Your task to perform on an android device: turn vacation reply on in the gmail app Image 0: 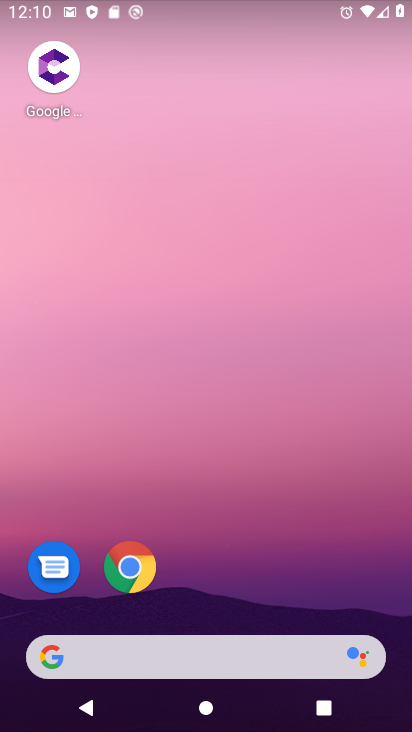
Step 0: drag from (222, 641) to (228, 243)
Your task to perform on an android device: turn vacation reply on in the gmail app Image 1: 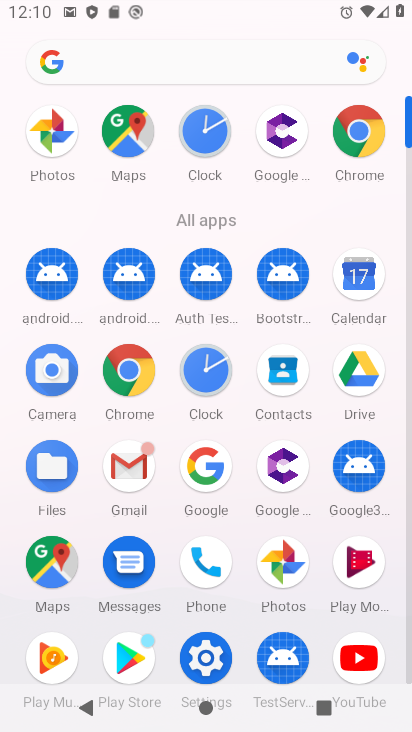
Step 1: click (147, 456)
Your task to perform on an android device: turn vacation reply on in the gmail app Image 2: 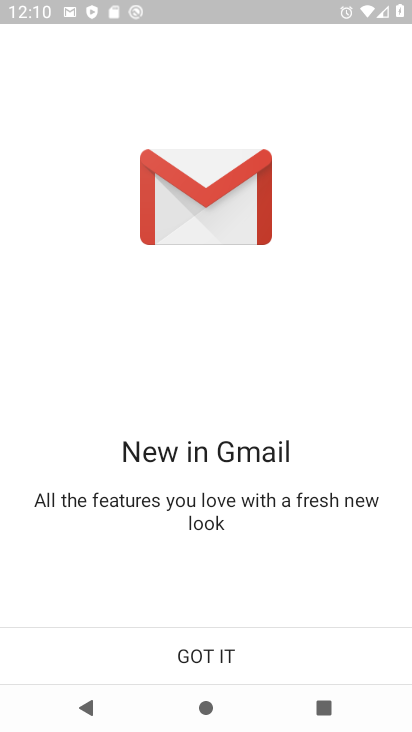
Step 2: click (194, 632)
Your task to perform on an android device: turn vacation reply on in the gmail app Image 3: 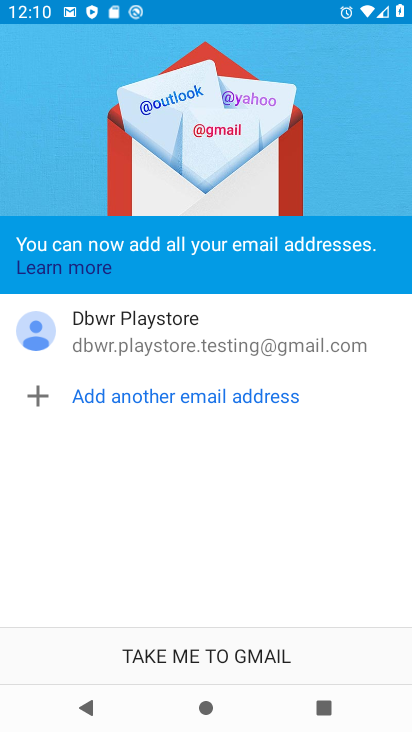
Step 3: click (194, 632)
Your task to perform on an android device: turn vacation reply on in the gmail app Image 4: 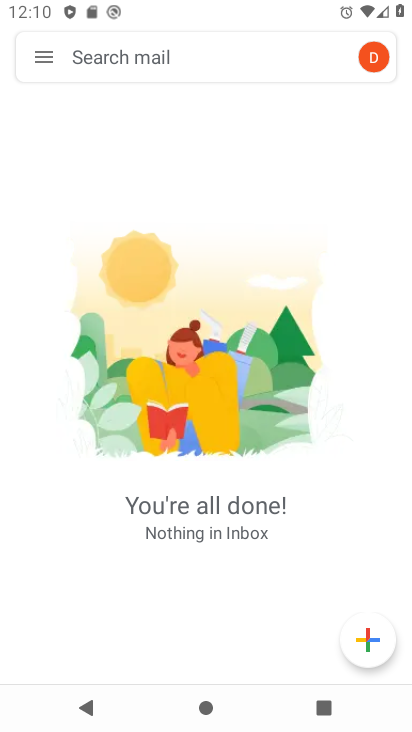
Step 4: click (53, 55)
Your task to perform on an android device: turn vacation reply on in the gmail app Image 5: 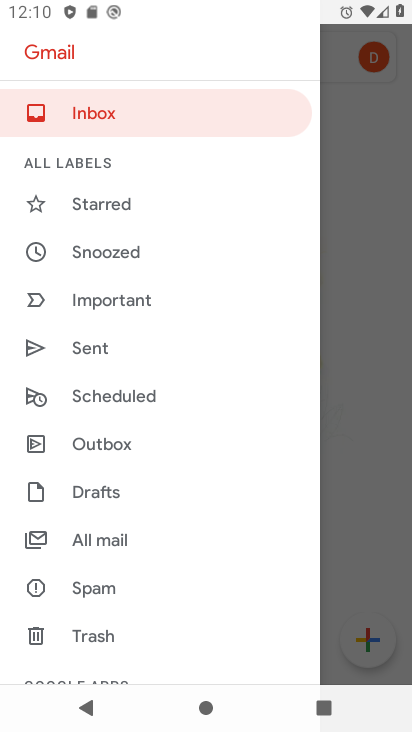
Step 5: drag from (132, 664) to (99, 206)
Your task to perform on an android device: turn vacation reply on in the gmail app Image 6: 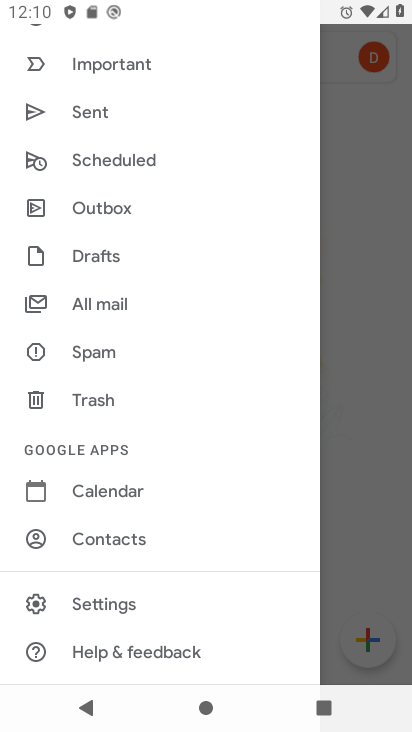
Step 6: click (116, 609)
Your task to perform on an android device: turn vacation reply on in the gmail app Image 7: 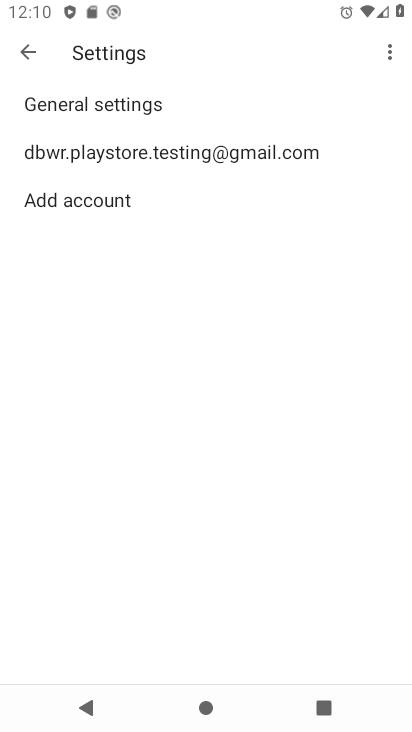
Step 7: click (154, 150)
Your task to perform on an android device: turn vacation reply on in the gmail app Image 8: 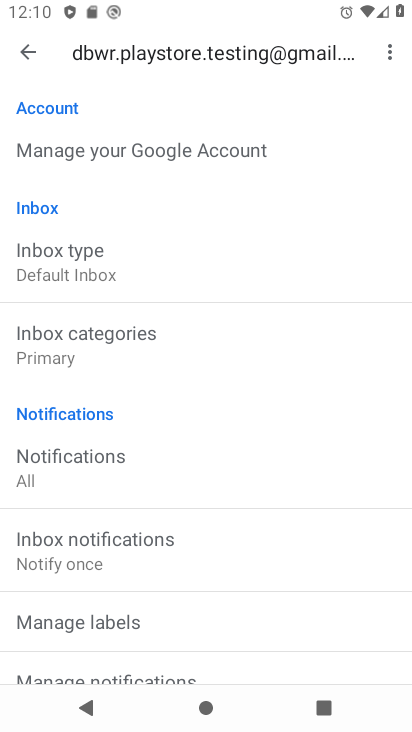
Step 8: drag from (127, 566) to (110, 157)
Your task to perform on an android device: turn vacation reply on in the gmail app Image 9: 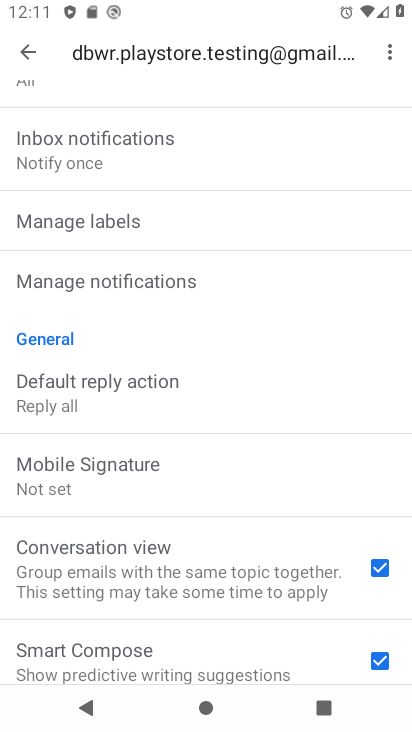
Step 9: drag from (147, 562) to (126, 144)
Your task to perform on an android device: turn vacation reply on in the gmail app Image 10: 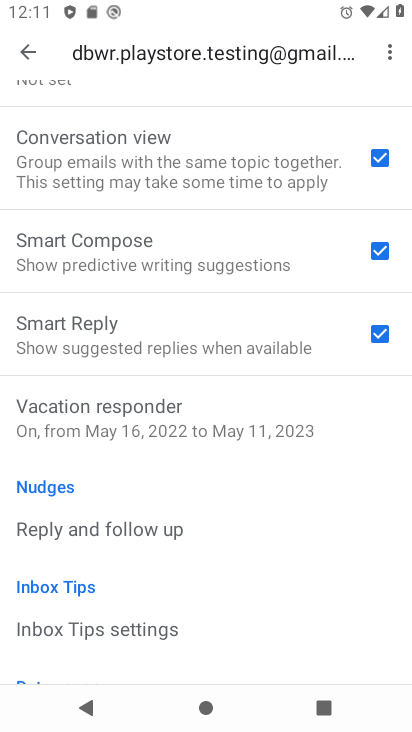
Step 10: click (159, 432)
Your task to perform on an android device: turn vacation reply on in the gmail app Image 11: 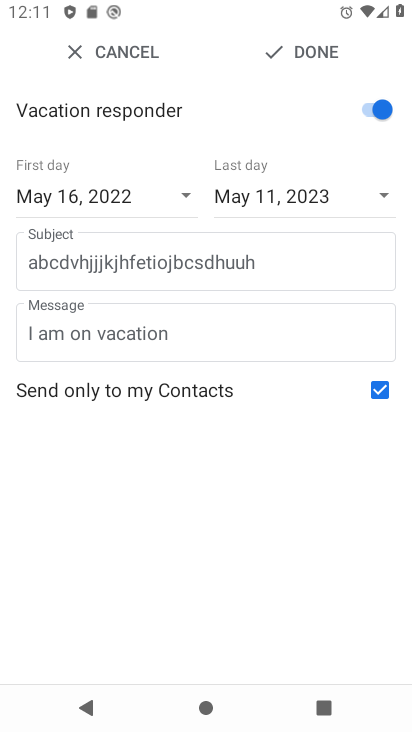
Step 11: click (295, 50)
Your task to perform on an android device: turn vacation reply on in the gmail app Image 12: 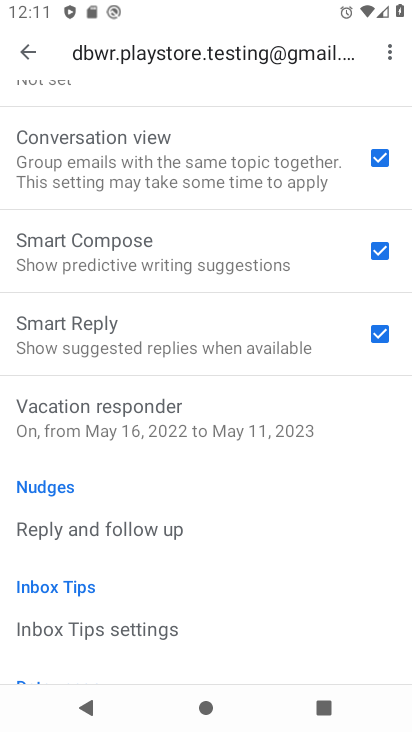
Step 12: task complete